Your task to perform on an android device: Open the web browser Image 0: 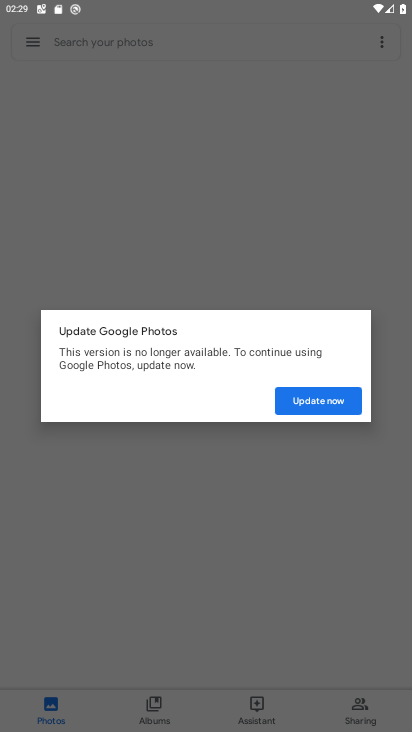
Step 0: press home button
Your task to perform on an android device: Open the web browser Image 1: 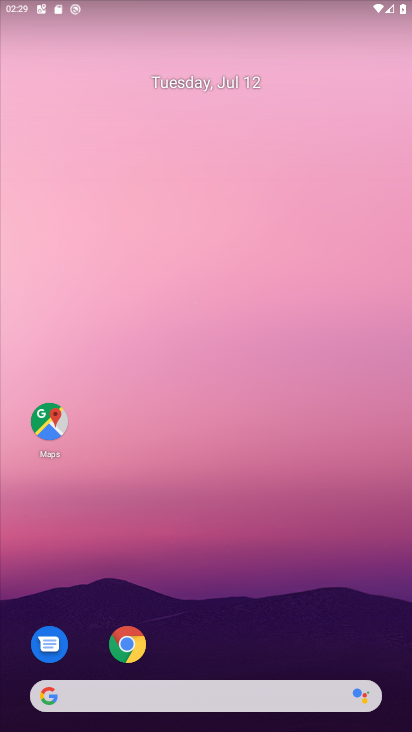
Step 1: click (170, 683)
Your task to perform on an android device: Open the web browser Image 2: 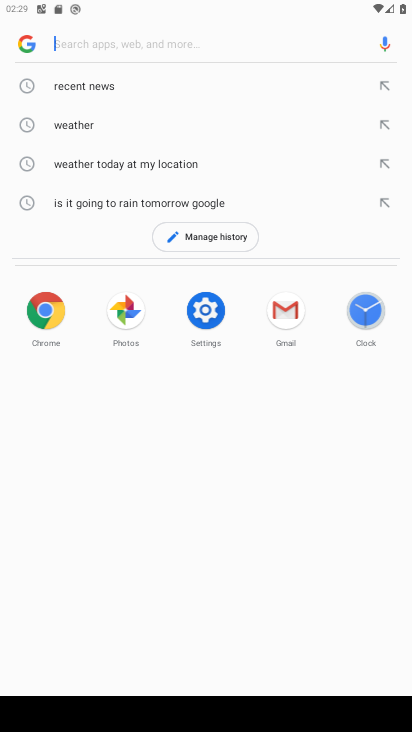
Step 2: task complete